Your task to perform on an android device: manage bookmarks in the chrome app Image 0: 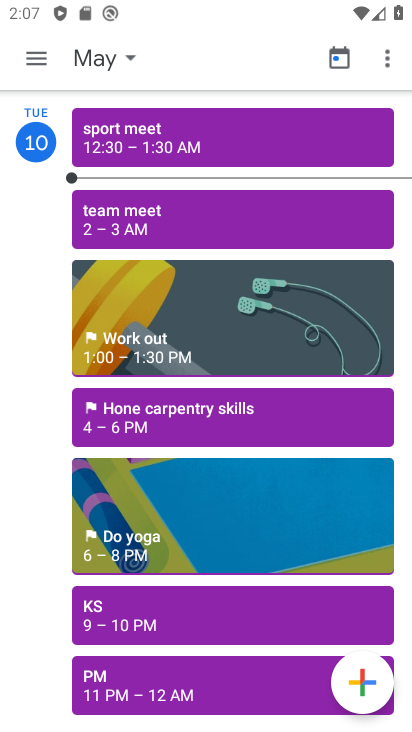
Step 0: drag from (223, 667) to (189, 200)
Your task to perform on an android device: manage bookmarks in the chrome app Image 1: 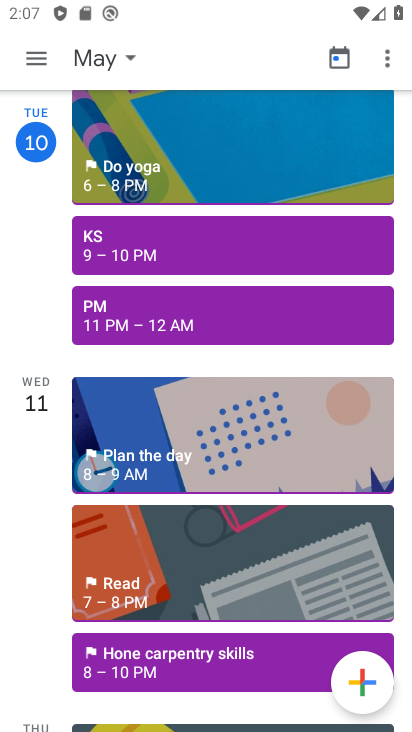
Step 1: press home button
Your task to perform on an android device: manage bookmarks in the chrome app Image 2: 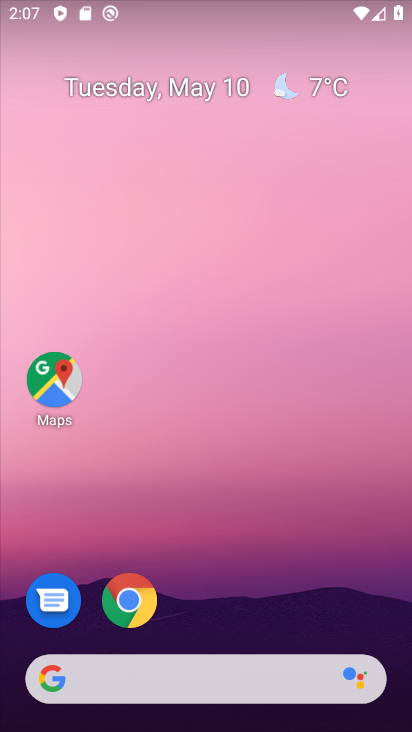
Step 2: click (112, 596)
Your task to perform on an android device: manage bookmarks in the chrome app Image 3: 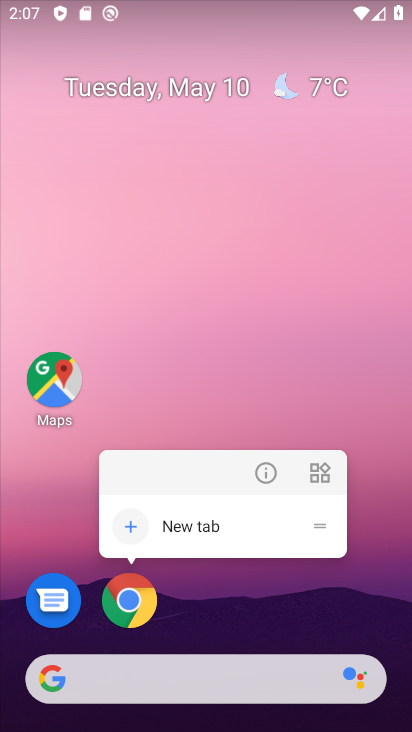
Step 3: click (123, 600)
Your task to perform on an android device: manage bookmarks in the chrome app Image 4: 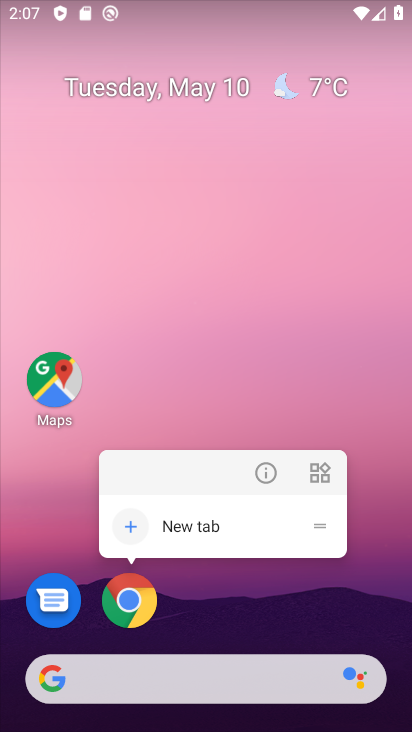
Step 4: click (138, 605)
Your task to perform on an android device: manage bookmarks in the chrome app Image 5: 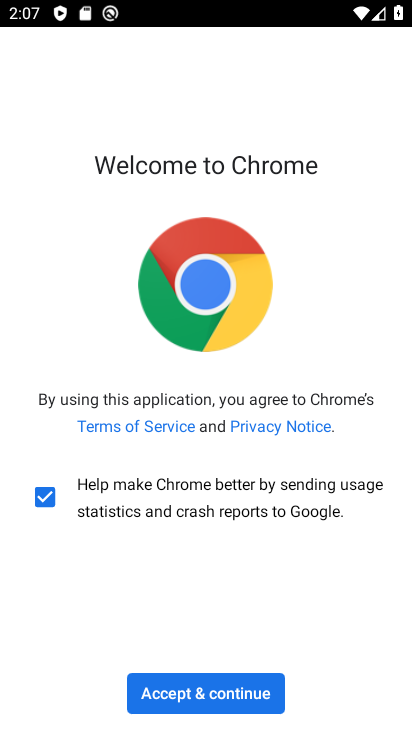
Step 5: click (206, 687)
Your task to perform on an android device: manage bookmarks in the chrome app Image 6: 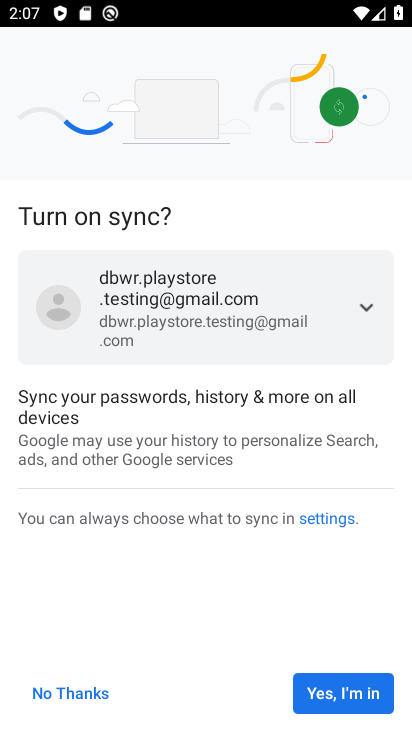
Step 6: click (350, 697)
Your task to perform on an android device: manage bookmarks in the chrome app Image 7: 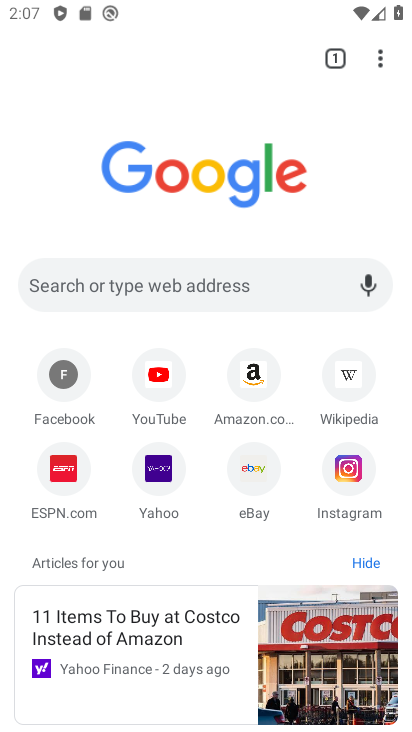
Step 7: click (384, 53)
Your task to perform on an android device: manage bookmarks in the chrome app Image 8: 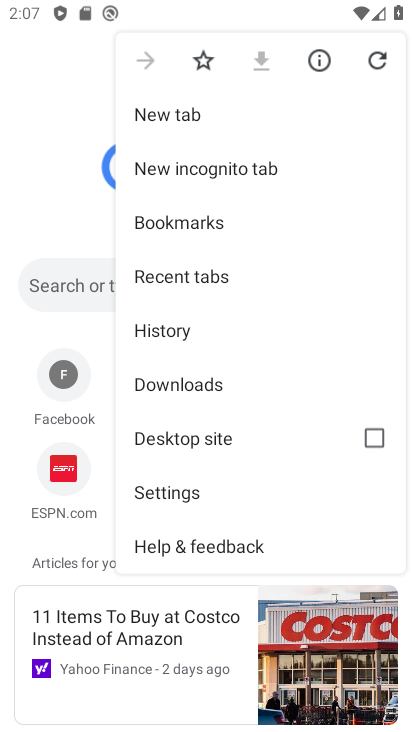
Step 8: click (192, 214)
Your task to perform on an android device: manage bookmarks in the chrome app Image 9: 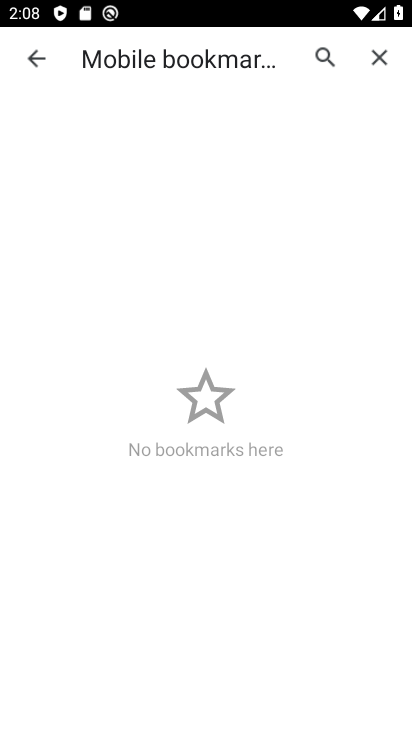
Step 9: task complete